Your task to perform on an android device: Search for the best selling book on Amazon. Image 0: 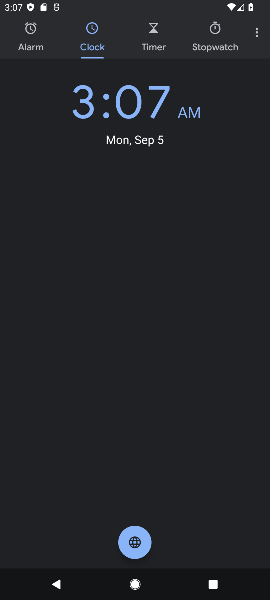
Step 0: press home button
Your task to perform on an android device: Search for the best selling book on Amazon. Image 1: 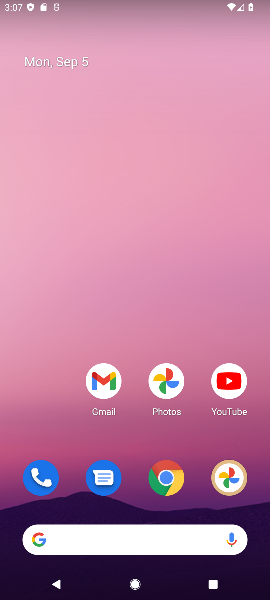
Step 1: click (165, 479)
Your task to perform on an android device: Search for the best selling book on Amazon. Image 2: 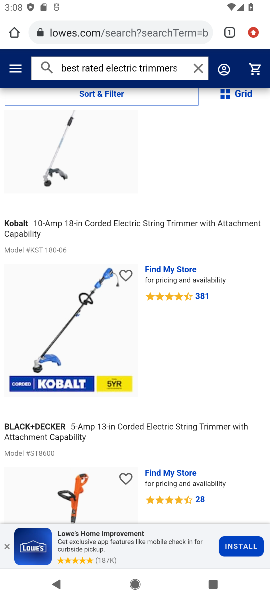
Step 2: click (177, 34)
Your task to perform on an android device: Search for the best selling book on Amazon. Image 3: 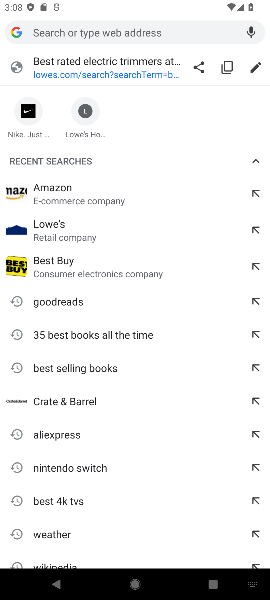
Step 3: type "amazon"
Your task to perform on an android device: Search for the best selling book on Amazon. Image 4: 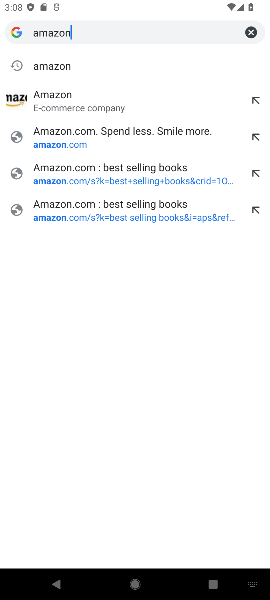
Step 4: click (105, 137)
Your task to perform on an android device: Search for the best selling book on Amazon. Image 5: 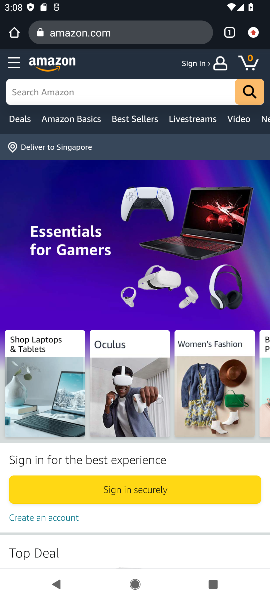
Step 5: click (122, 89)
Your task to perform on an android device: Search for the best selling book on Amazon. Image 6: 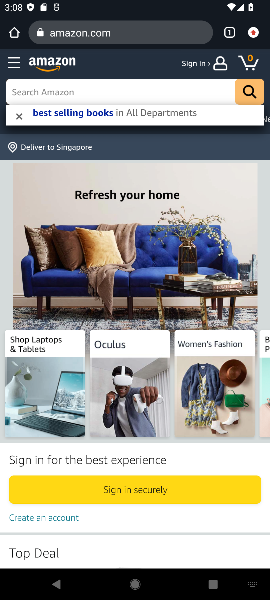
Step 6: type "best selling book"
Your task to perform on an android device: Search for the best selling book on Amazon. Image 7: 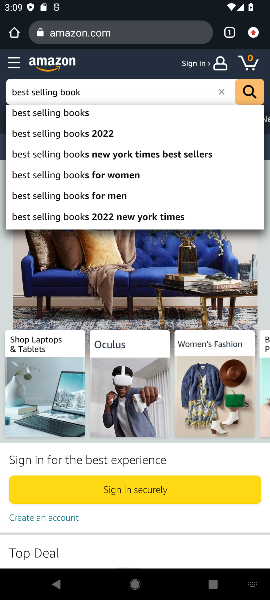
Step 7: click (114, 113)
Your task to perform on an android device: Search for the best selling book on Amazon. Image 8: 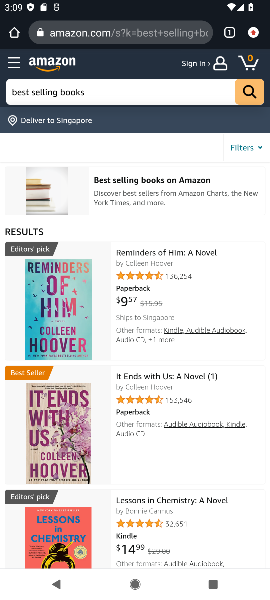
Step 8: task complete